Your task to perform on an android device: Open calendar and show me the third week of next month Image 0: 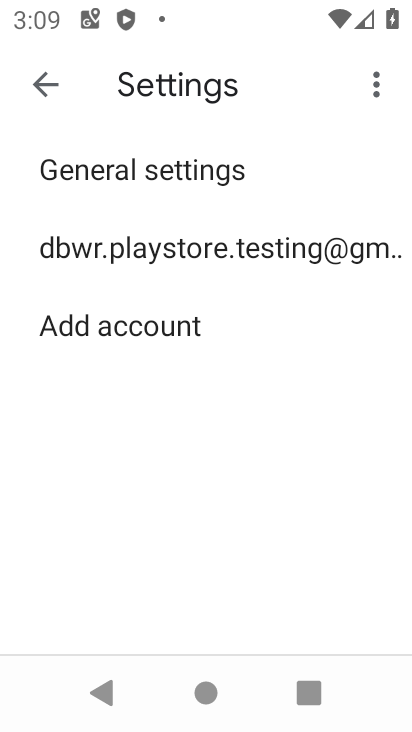
Step 0: press home button
Your task to perform on an android device: Open calendar and show me the third week of next month Image 1: 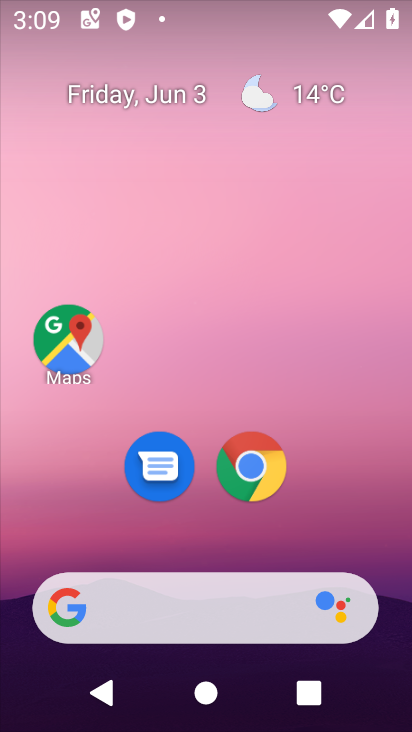
Step 1: drag from (308, 454) to (305, 146)
Your task to perform on an android device: Open calendar and show me the third week of next month Image 2: 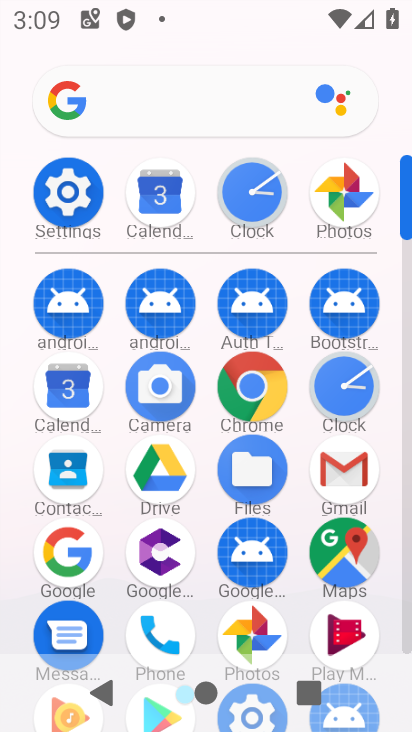
Step 2: click (162, 187)
Your task to perform on an android device: Open calendar and show me the third week of next month Image 3: 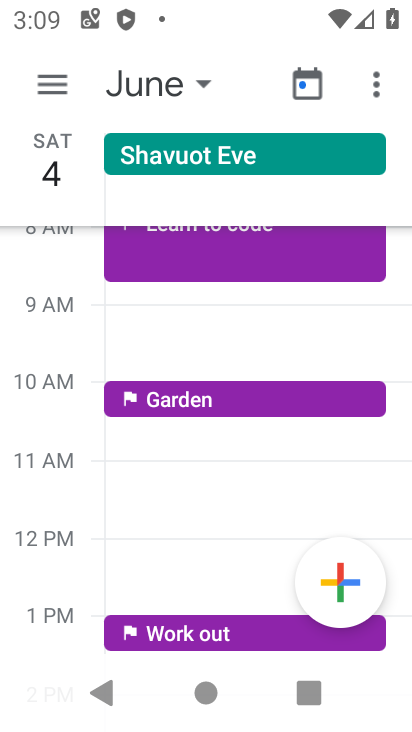
Step 3: click (51, 84)
Your task to perform on an android device: Open calendar and show me the third week of next month Image 4: 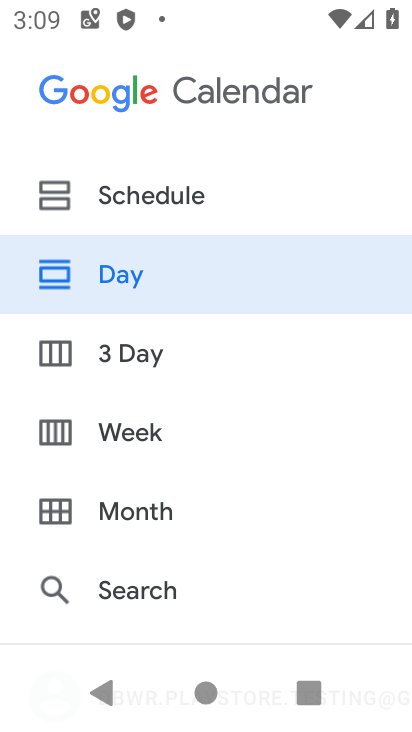
Step 4: click (131, 579)
Your task to perform on an android device: Open calendar and show me the third week of next month Image 5: 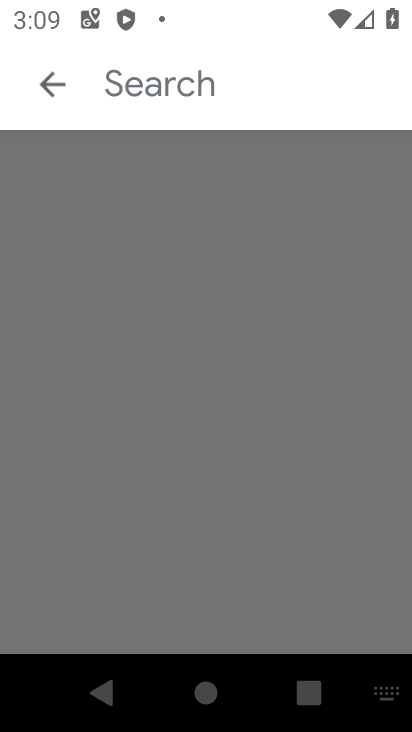
Step 5: type "third week of next month"
Your task to perform on an android device: Open calendar and show me the third week of next month Image 6: 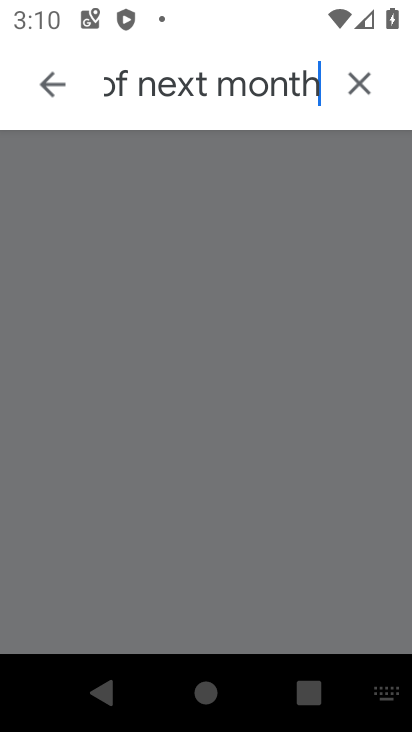
Step 6: type " "
Your task to perform on an android device: Open calendar and show me the third week of next month Image 7: 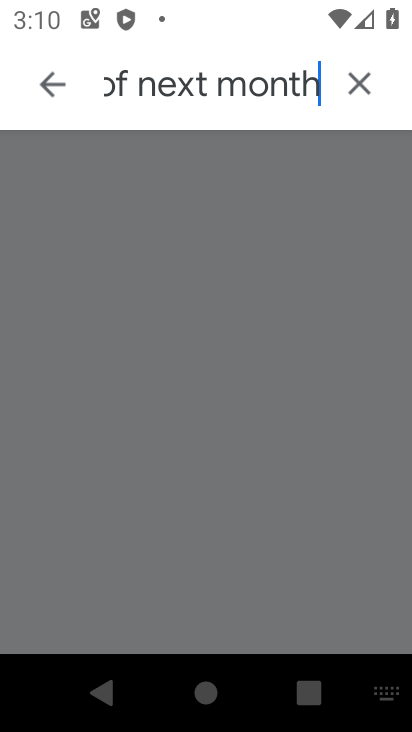
Step 7: click (60, 73)
Your task to perform on an android device: Open calendar and show me the third week of next month Image 8: 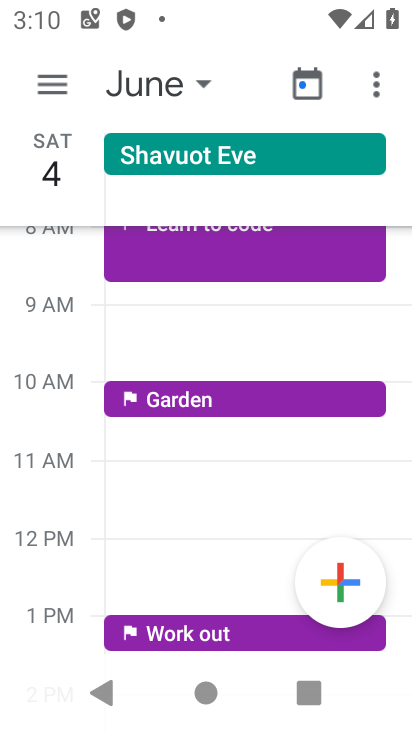
Step 8: click (204, 74)
Your task to perform on an android device: Open calendar and show me the third week of next month Image 9: 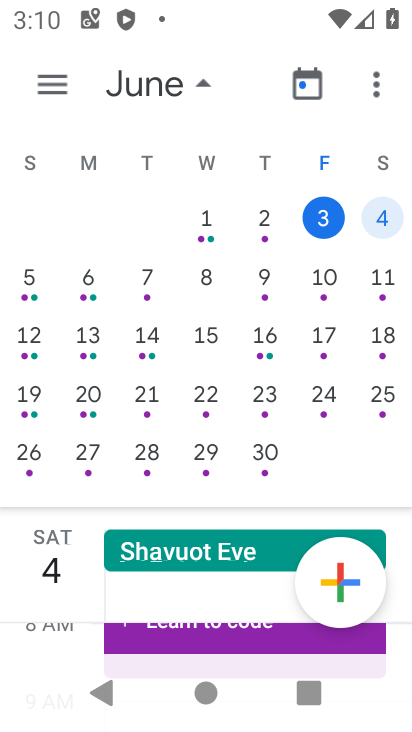
Step 9: drag from (315, 408) to (63, 396)
Your task to perform on an android device: Open calendar and show me the third week of next month Image 10: 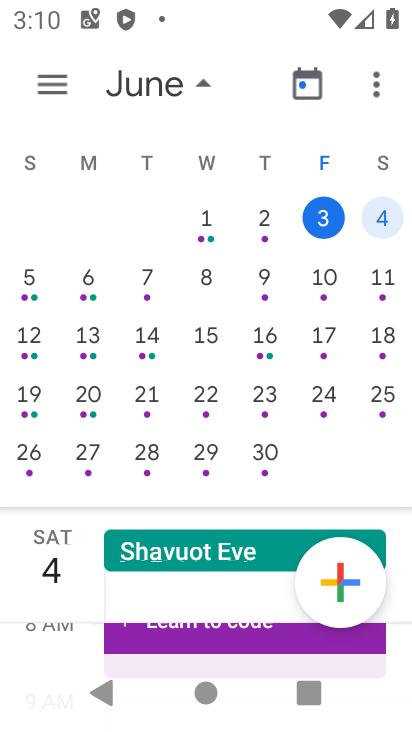
Step 10: drag from (209, 214) to (8, 261)
Your task to perform on an android device: Open calendar and show me the third week of next month Image 11: 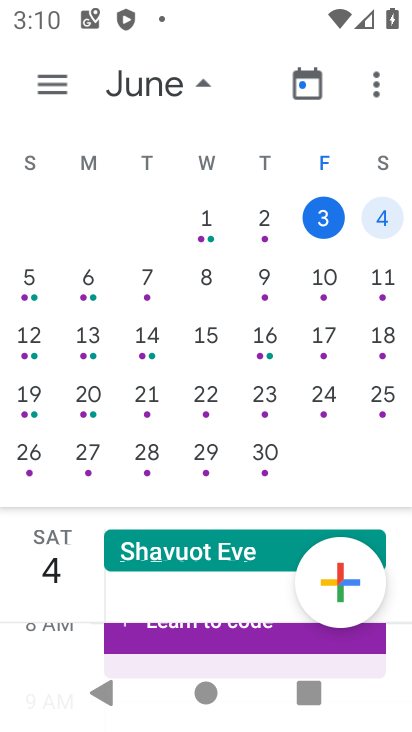
Step 11: drag from (354, 463) to (2, 449)
Your task to perform on an android device: Open calendar and show me the third week of next month Image 12: 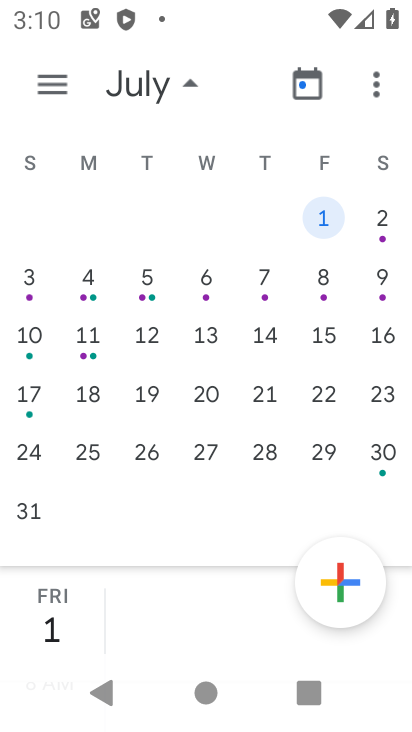
Step 12: click (33, 327)
Your task to perform on an android device: Open calendar and show me the third week of next month Image 13: 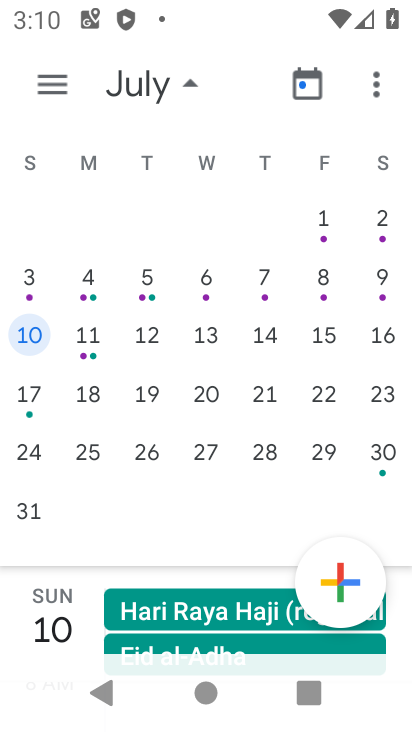
Step 13: task complete